Your task to perform on an android device: What's the weather? Image 0: 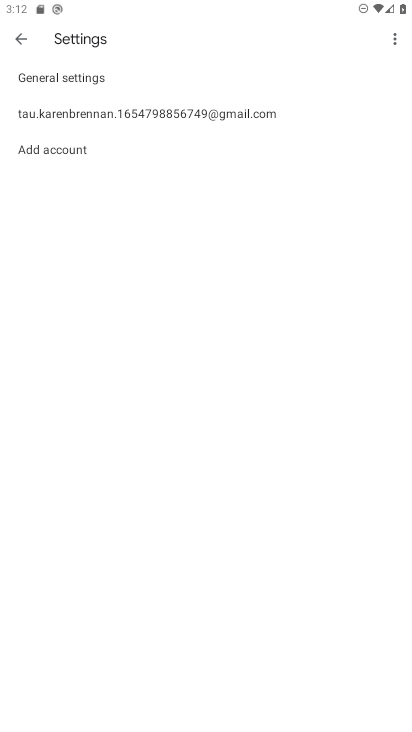
Step 0: press home button
Your task to perform on an android device: What's the weather? Image 1: 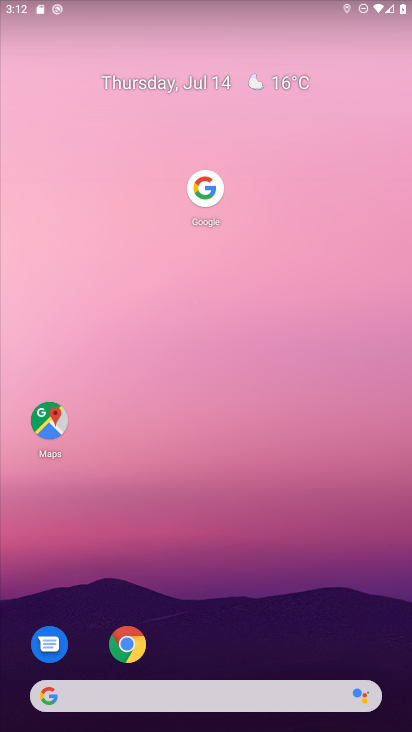
Step 1: drag from (245, 646) to (253, 213)
Your task to perform on an android device: What's the weather? Image 2: 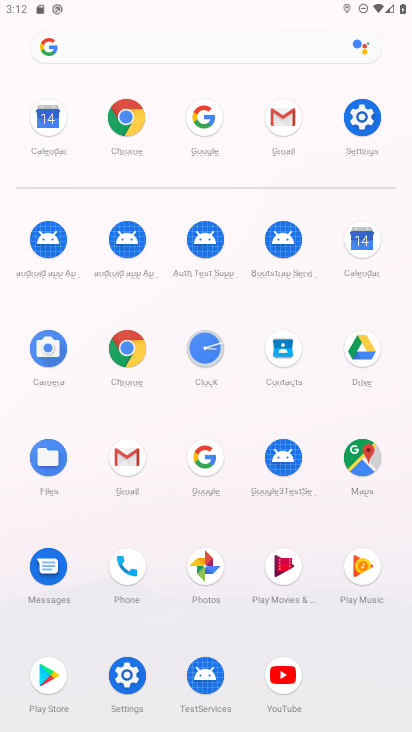
Step 2: click (201, 138)
Your task to perform on an android device: What's the weather? Image 3: 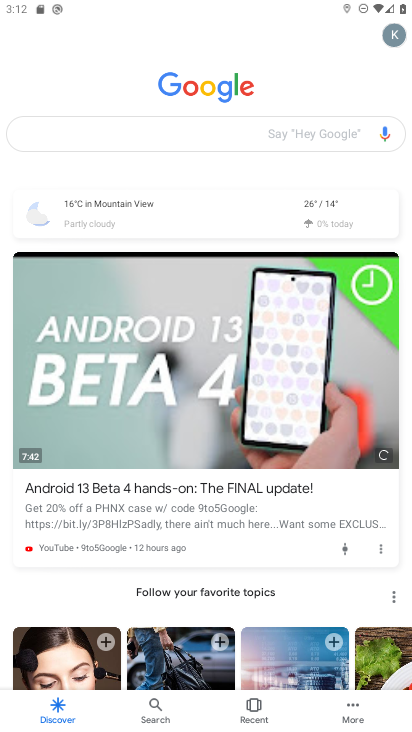
Step 3: click (201, 138)
Your task to perform on an android device: What's the weather? Image 4: 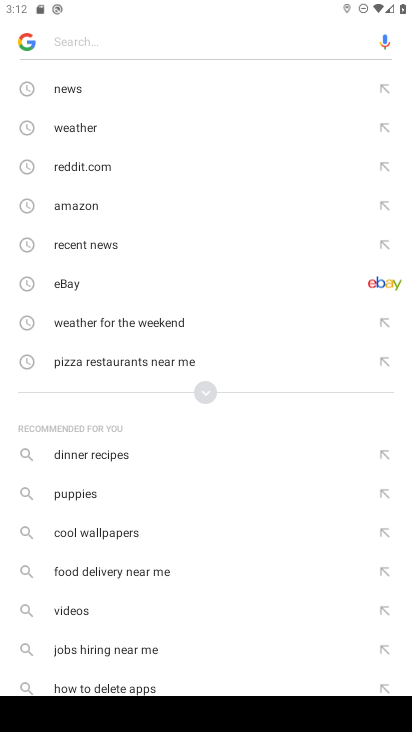
Step 4: click (118, 126)
Your task to perform on an android device: What's the weather? Image 5: 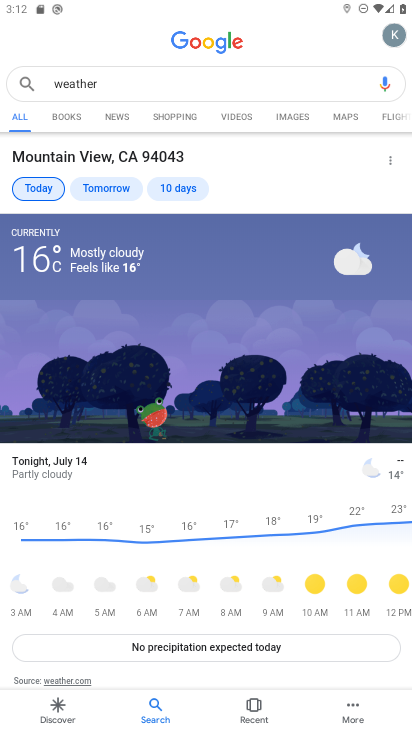
Step 5: task complete